Your task to perform on an android device: set the stopwatch Image 0: 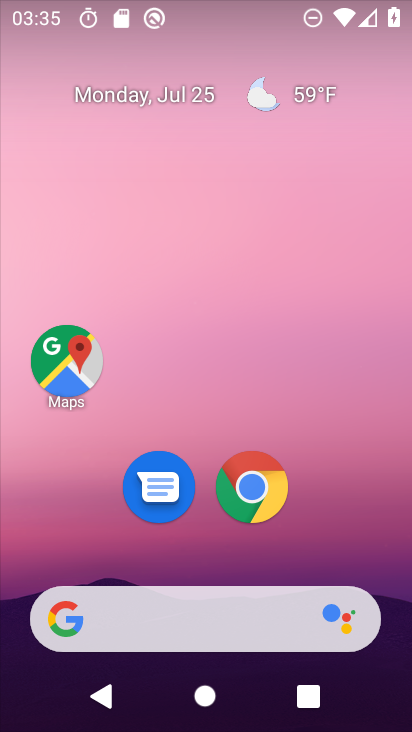
Step 0: drag from (204, 525) to (226, 29)
Your task to perform on an android device: set the stopwatch Image 1: 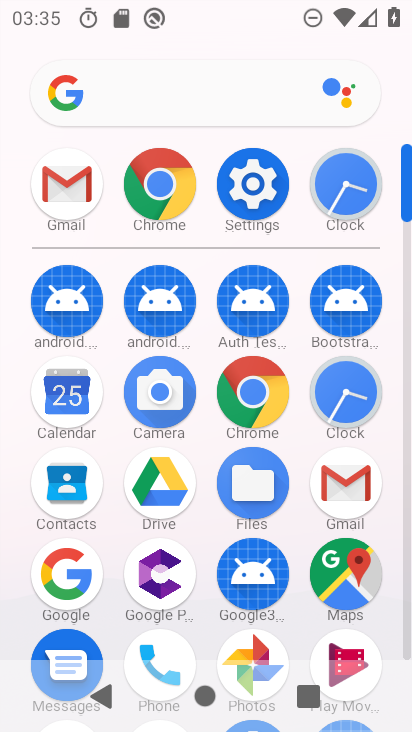
Step 1: click (335, 397)
Your task to perform on an android device: set the stopwatch Image 2: 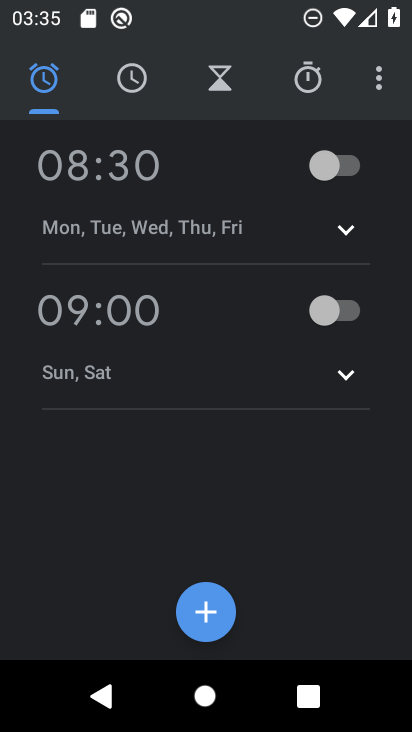
Step 2: click (297, 75)
Your task to perform on an android device: set the stopwatch Image 3: 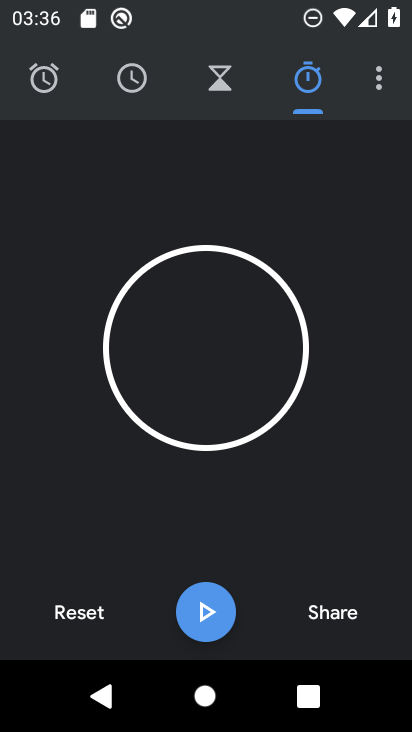
Step 3: task complete